Your task to perform on an android device: Show me productivity apps on the Play Store Image 0: 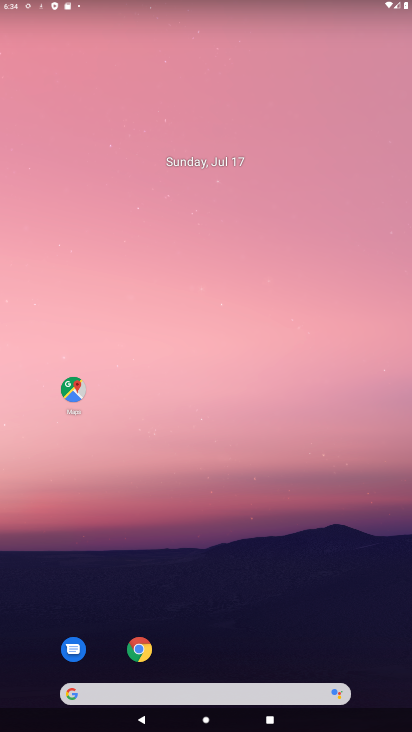
Step 0: drag from (240, 608) to (185, 129)
Your task to perform on an android device: Show me productivity apps on the Play Store Image 1: 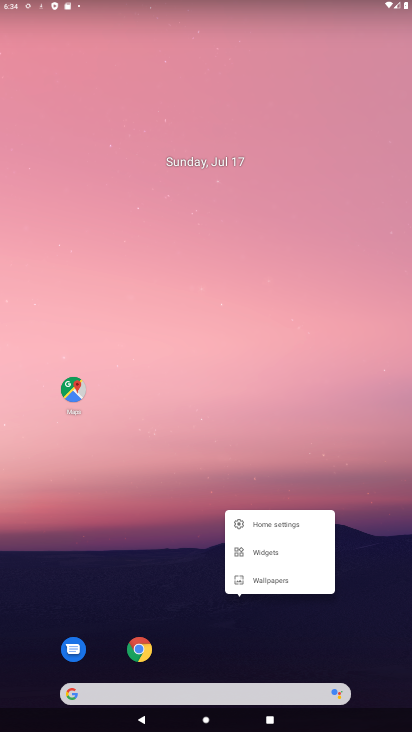
Step 1: click (138, 505)
Your task to perform on an android device: Show me productivity apps on the Play Store Image 2: 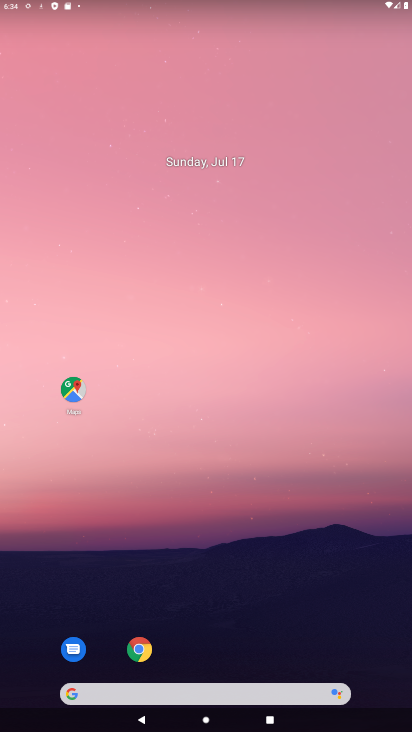
Step 2: drag from (170, 509) to (204, 56)
Your task to perform on an android device: Show me productivity apps on the Play Store Image 3: 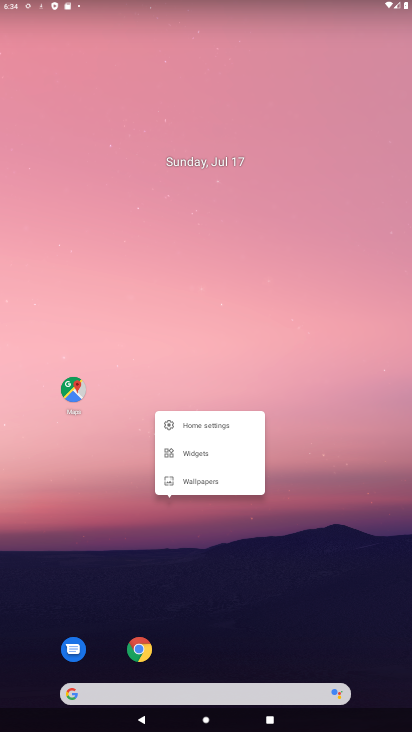
Step 3: click (288, 530)
Your task to perform on an android device: Show me productivity apps on the Play Store Image 4: 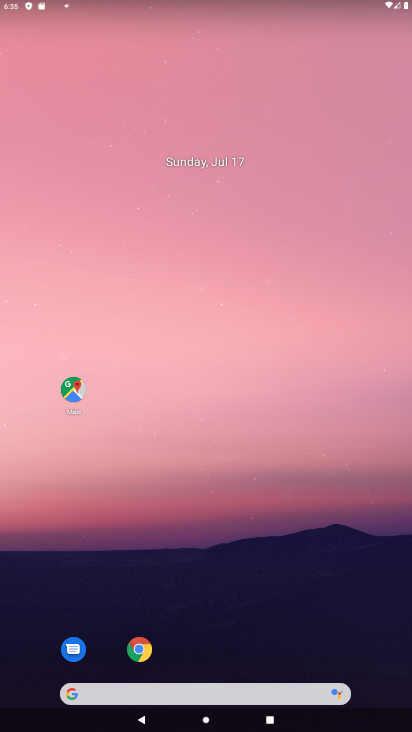
Step 4: drag from (194, 672) to (147, 28)
Your task to perform on an android device: Show me productivity apps on the Play Store Image 5: 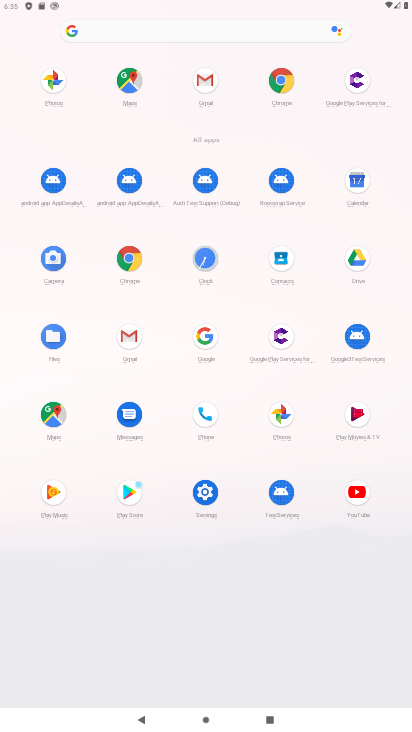
Step 5: click (125, 491)
Your task to perform on an android device: Show me productivity apps on the Play Store Image 6: 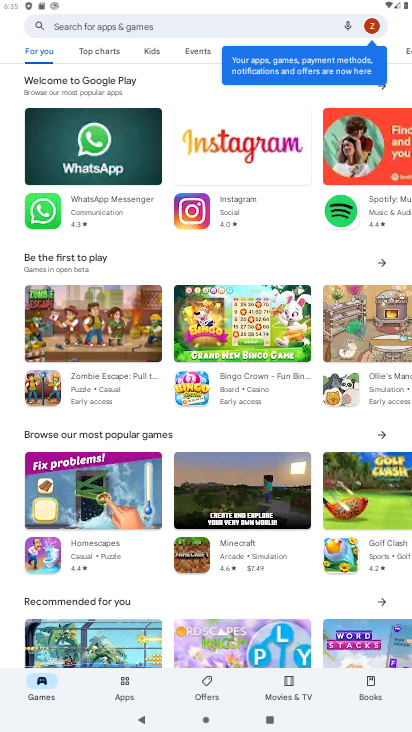
Step 6: click (124, 679)
Your task to perform on an android device: Show me productivity apps on the Play Store Image 7: 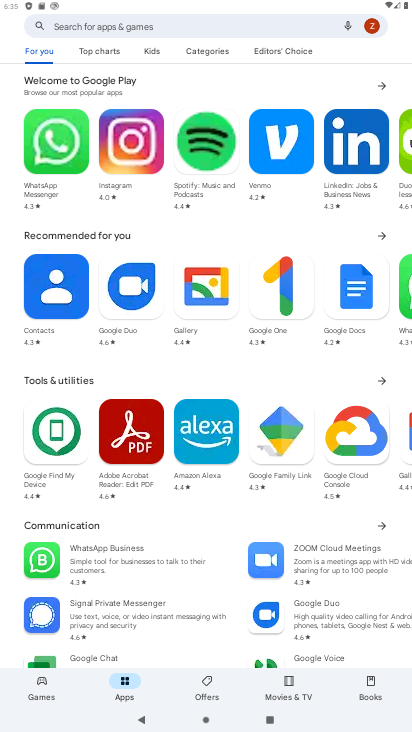
Step 7: task complete